Your task to perform on an android device: turn on data saver in the chrome app Image 0: 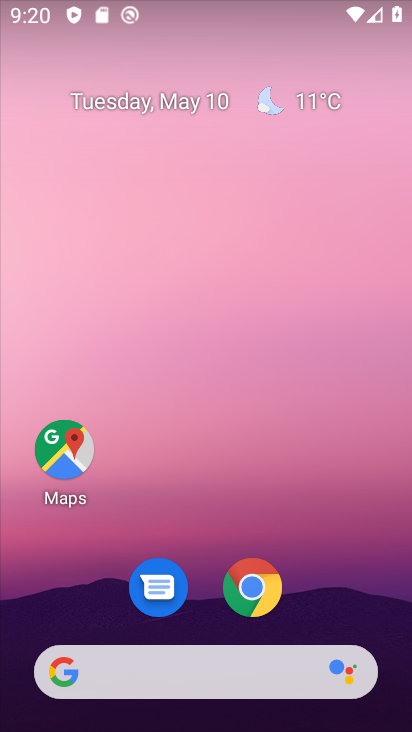
Step 0: drag from (316, 501) to (266, 258)
Your task to perform on an android device: turn on data saver in the chrome app Image 1: 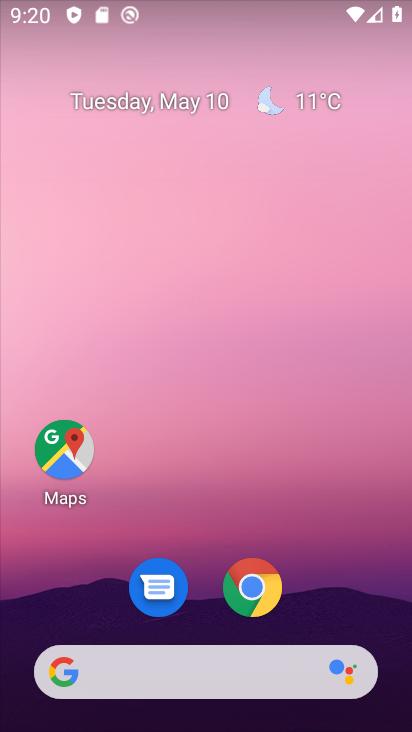
Step 1: drag from (343, 559) to (293, 263)
Your task to perform on an android device: turn on data saver in the chrome app Image 2: 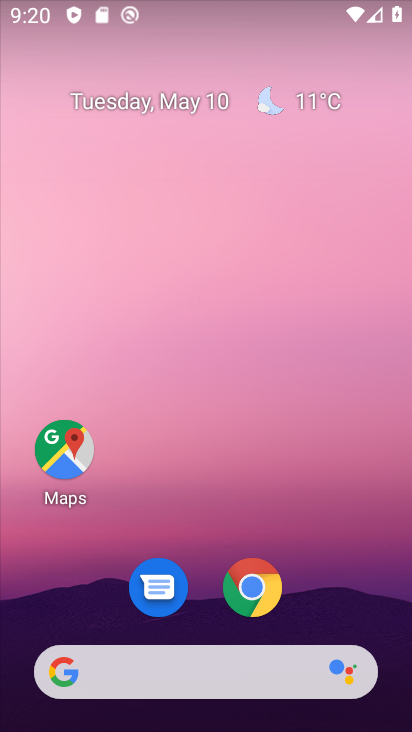
Step 2: drag from (343, 569) to (296, 120)
Your task to perform on an android device: turn on data saver in the chrome app Image 3: 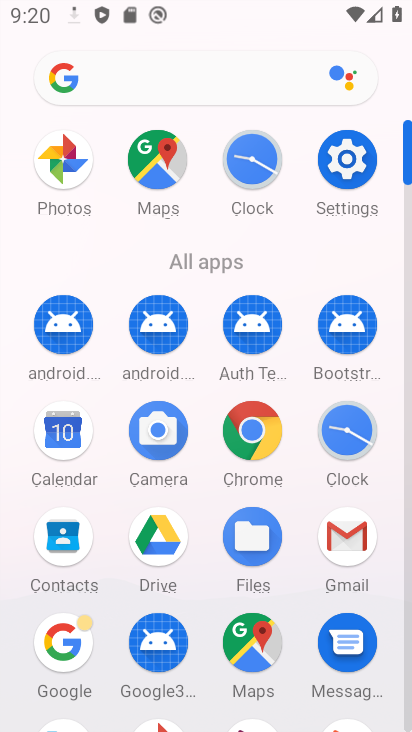
Step 3: click (253, 440)
Your task to perform on an android device: turn on data saver in the chrome app Image 4: 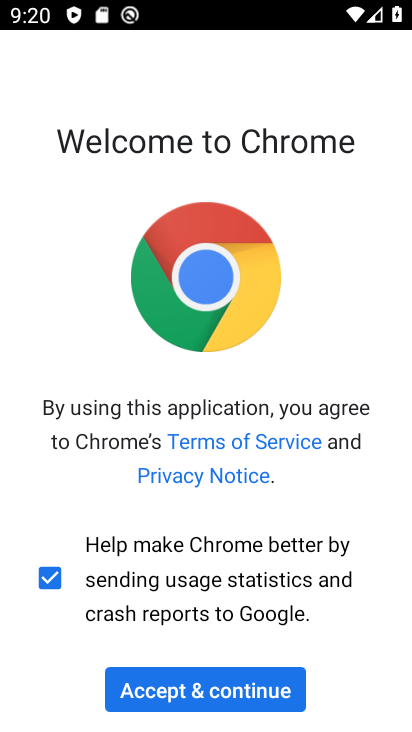
Step 4: click (218, 702)
Your task to perform on an android device: turn on data saver in the chrome app Image 5: 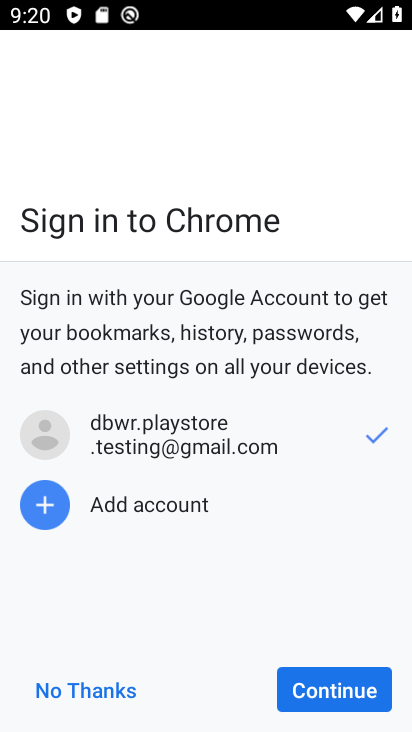
Step 5: click (349, 695)
Your task to perform on an android device: turn on data saver in the chrome app Image 6: 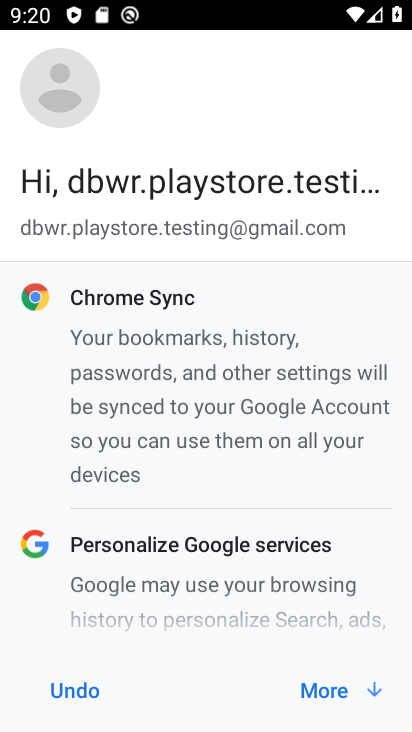
Step 6: click (349, 695)
Your task to perform on an android device: turn on data saver in the chrome app Image 7: 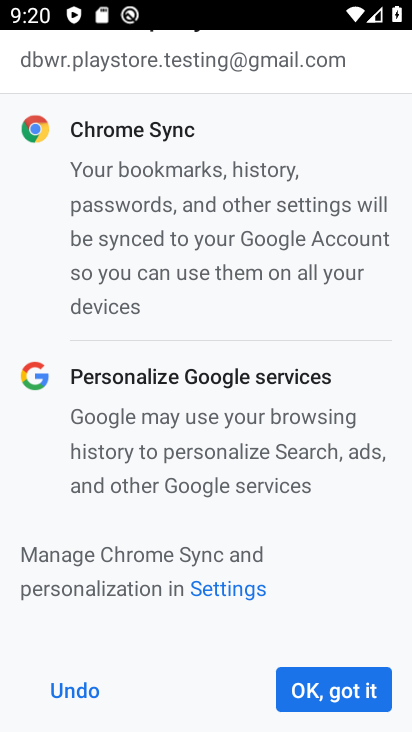
Step 7: click (349, 695)
Your task to perform on an android device: turn on data saver in the chrome app Image 8: 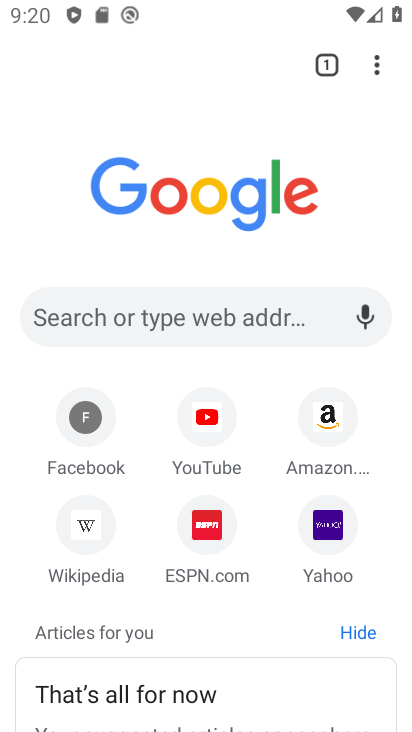
Step 8: drag from (376, 76) to (188, 549)
Your task to perform on an android device: turn on data saver in the chrome app Image 9: 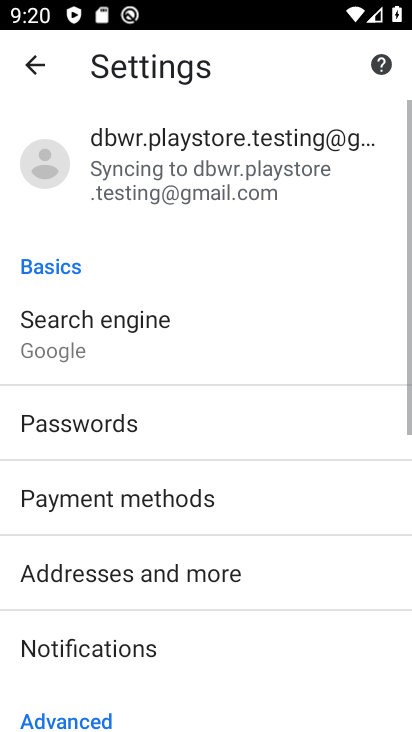
Step 9: drag from (271, 671) to (264, 295)
Your task to perform on an android device: turn on data saver in the chrome app Image 10: 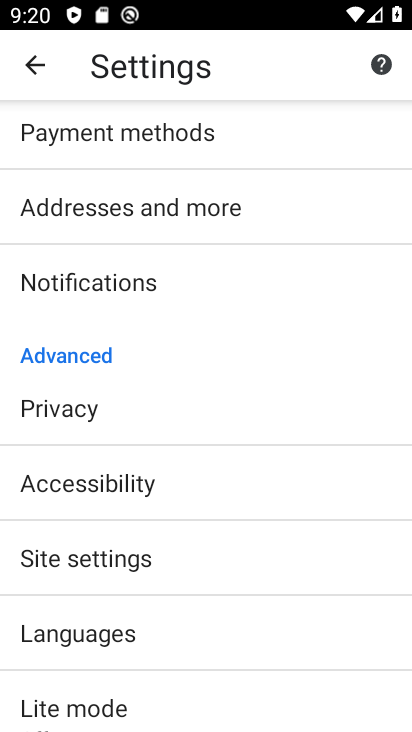
Step 10: drag from (276, 558) to (283, 295)
Your task to perform on an android device: turn on data saver in the chrome app Image 11: 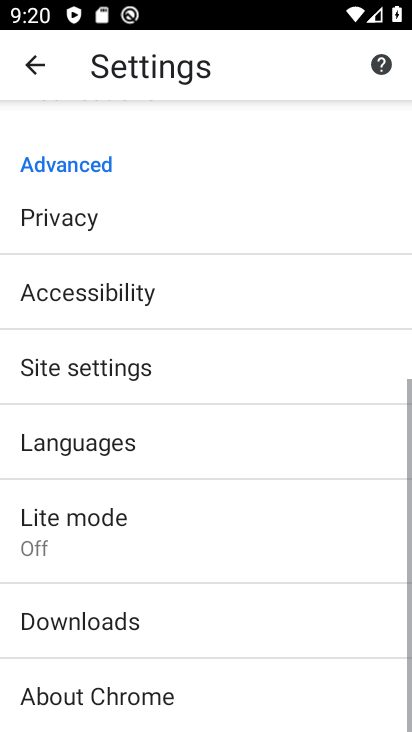
Step 11: click (109, 549)
Your task to perform on an android device: turn on data saver in the chrome app Image 12: 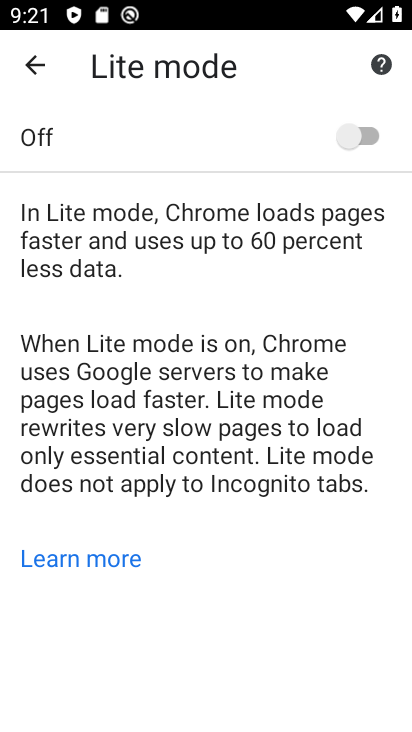
Step 12: click (373, 138)
Your task to perform on an android device: turn on data saver in the chrome app Image 13: 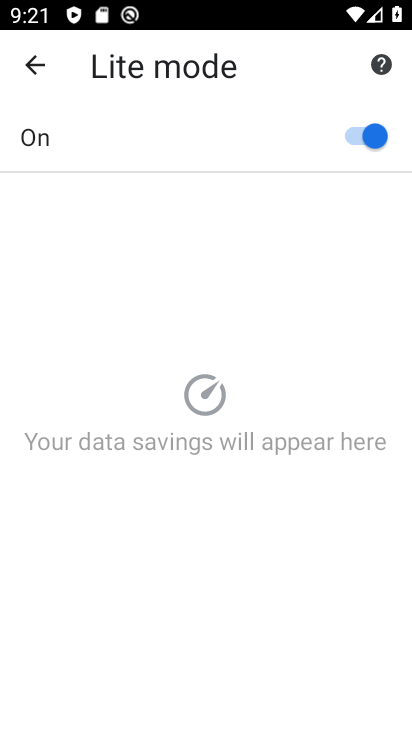
Step 13: task complete